Your task to perform on an android device: find photos in the google photos app Image 0: 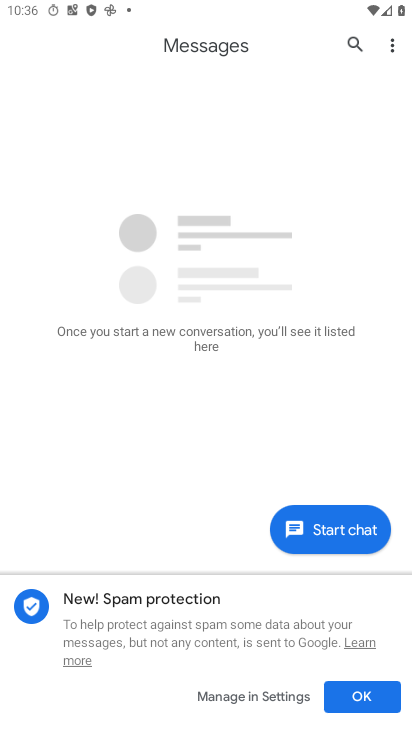
Step 0: press home button
Your task to perform on an android device: find photos in the google photos app Image 1: 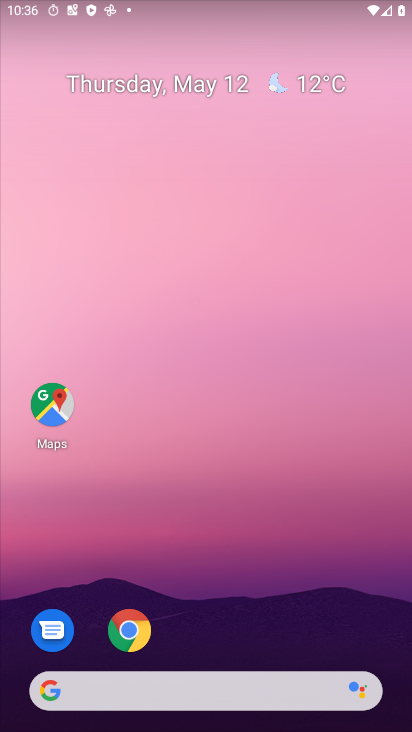
Step 1: drag from (232, 681) to (263, 121)
Your task to perform on an android device: find photos in the google photos app Image 2: 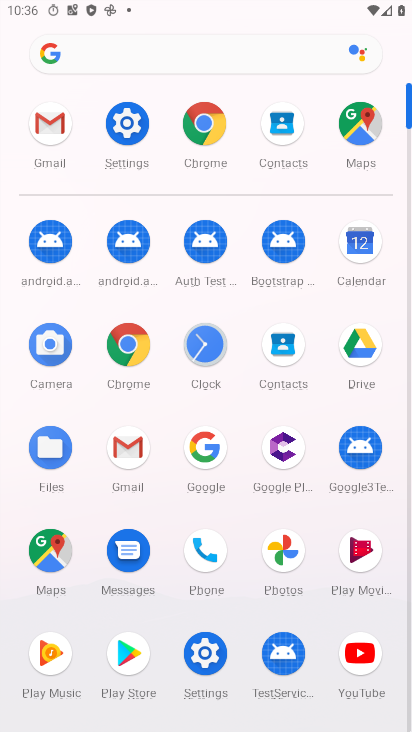
Step 2: click (282, 542)
Your task to perform on an android device: find photos in the google photos app Image 3: 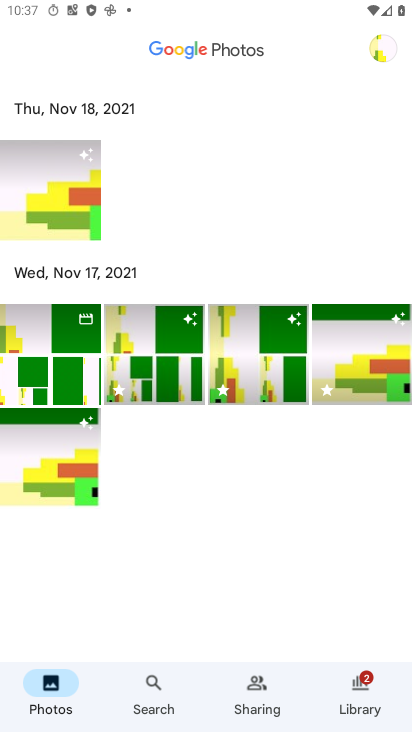
Step 3: task complete